Your task to perform on an android device: Go to privacy settings Image 0: 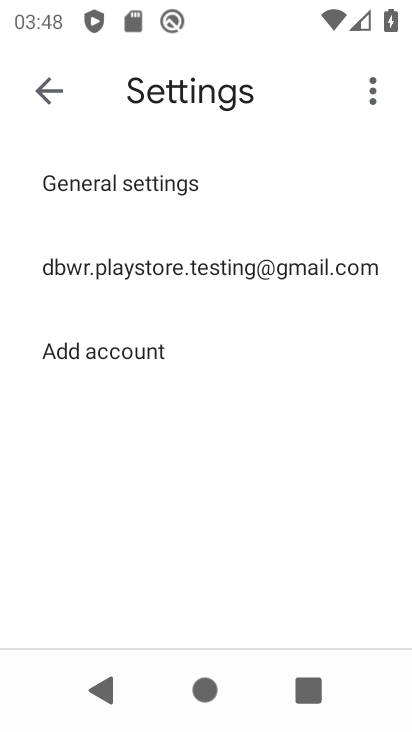
Step 0: press home button
Your task to perform on an android device: Go to privacy settings Image 1: 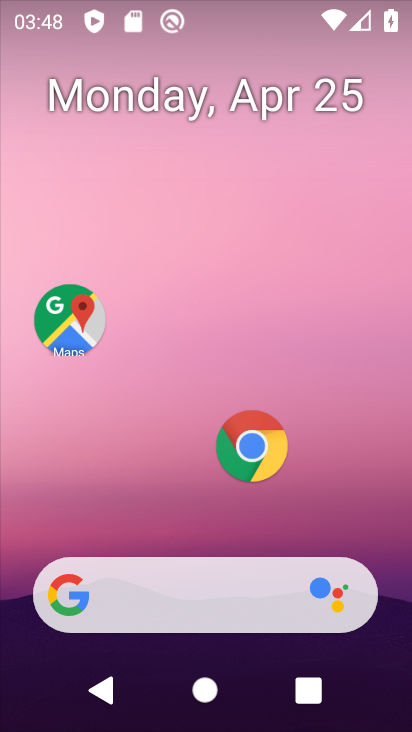
Step 1: drag from (208, 520) to (274, 44)
Your task to perform on an android device: Go to privacy settings Image 2: 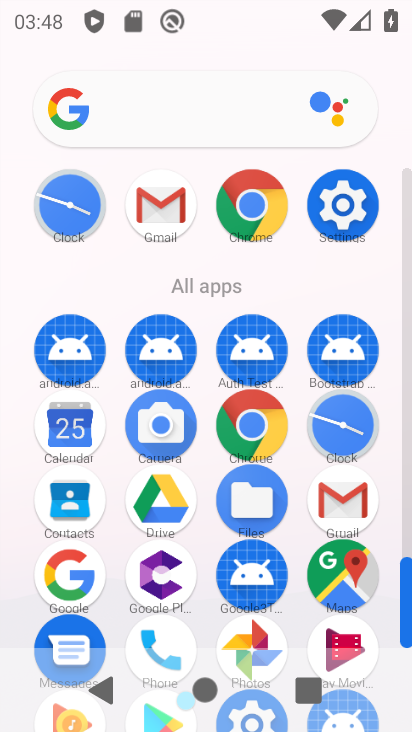
Step 2: click (355, 218)
Your task to perform on an android device: Go to privacy settings Image 3: 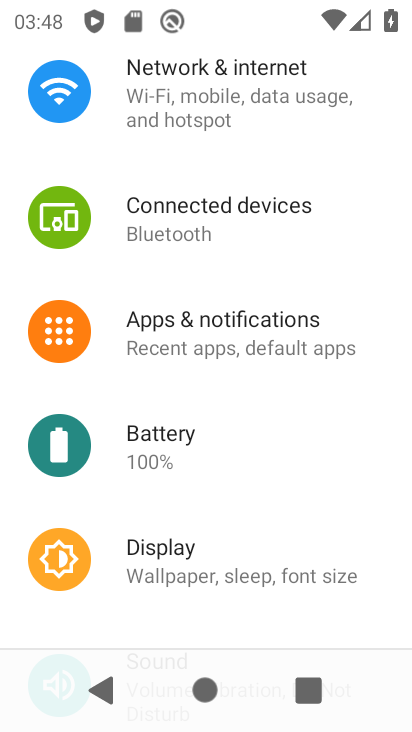
Step 3: drag from (249, 537) to (240, 218)
Your task to perform on an android device: Go to privacy settings Image 4: 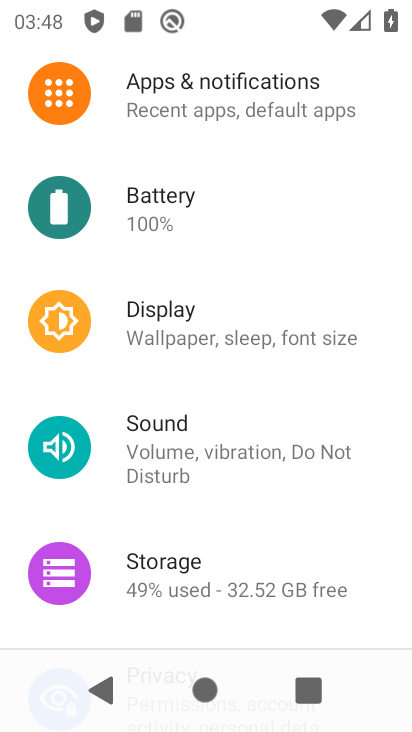
Step 4: drag from (119, 567) to (272, 22)
Your task to perform on an android device: Go to privacy settings Image 5: 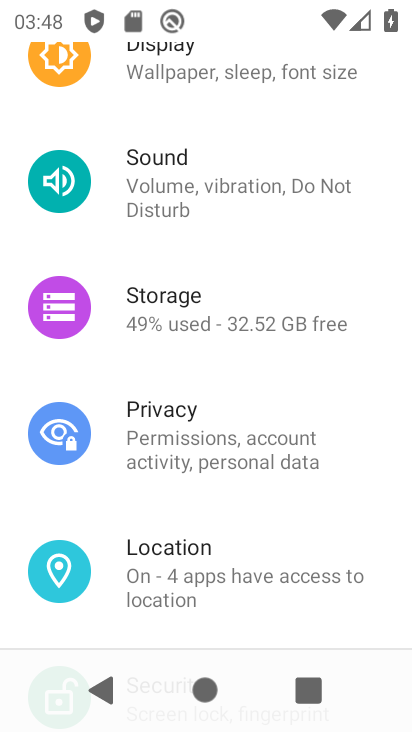
Step 5: click (165, 454)
Your task to perform on an android device: Go to privacy settings Image 6: 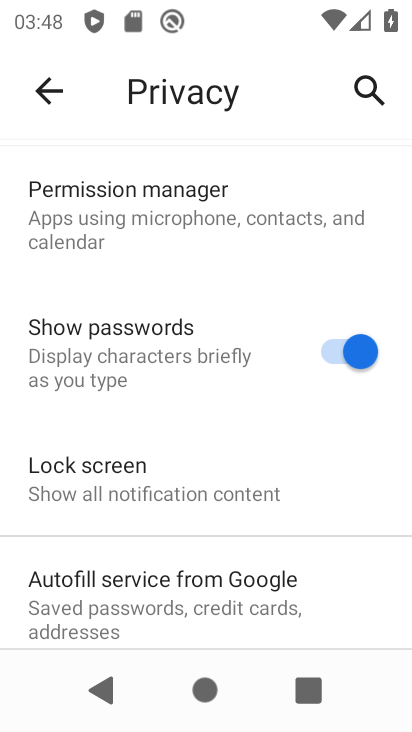
Step 6: task complete